Your task to perform on an android device: Go to Android settings Image 0: 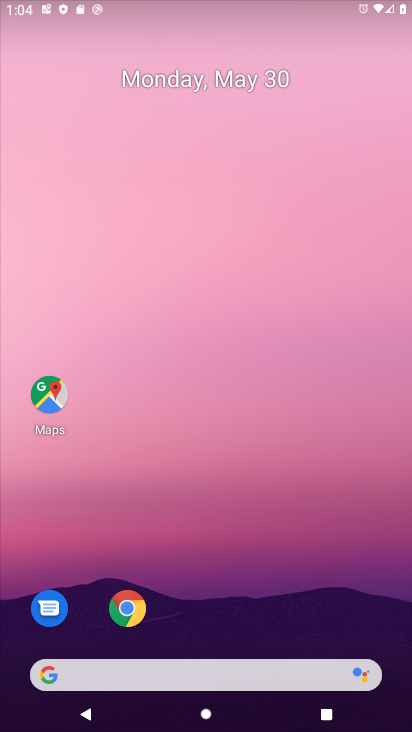
Step 0: click (224, 681)
Your task to perform on an android device: Go to Android settings Image 1: 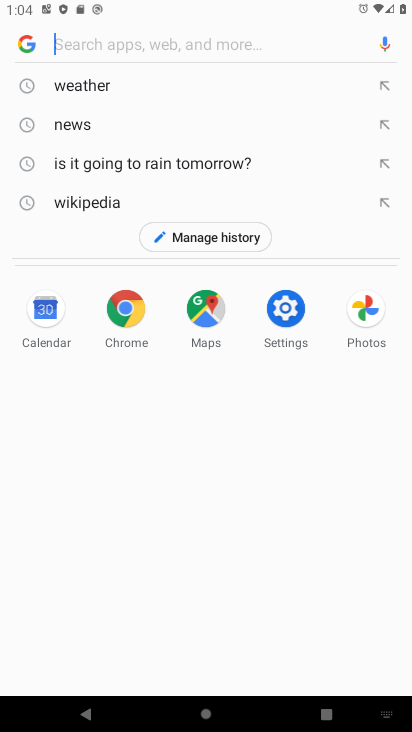
Step 1: press home button
Your task to perform on an android device: Go to Android settings Image 2: 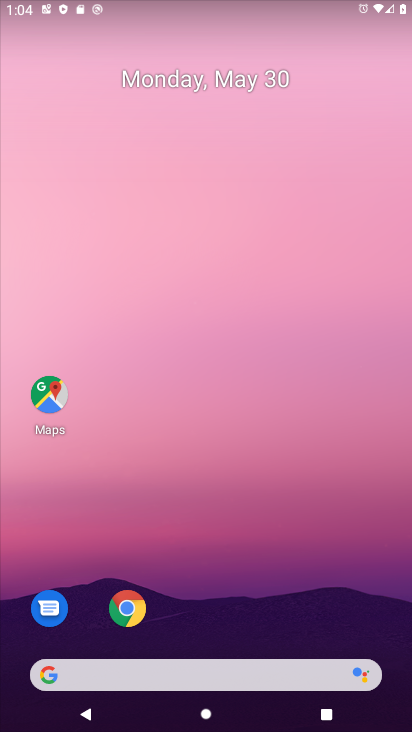
Step 2: drag from (214, 552) to (227, 167)
Your task to perform on an android device: Go to Android settings Image 3: 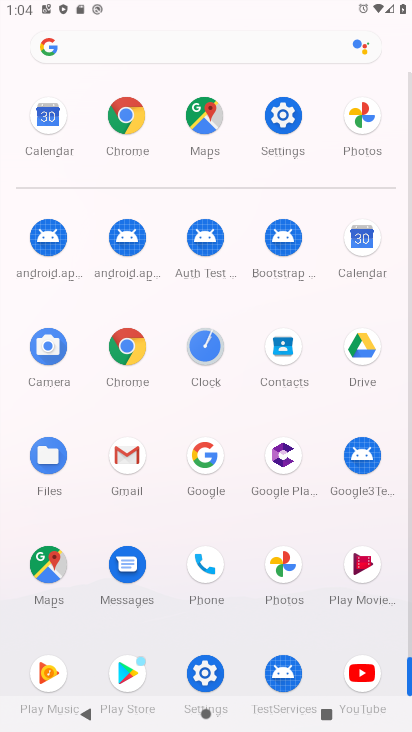
Step 3: click (292, 121)
Your task to perform on an android device: Go to Android settings Image 4: 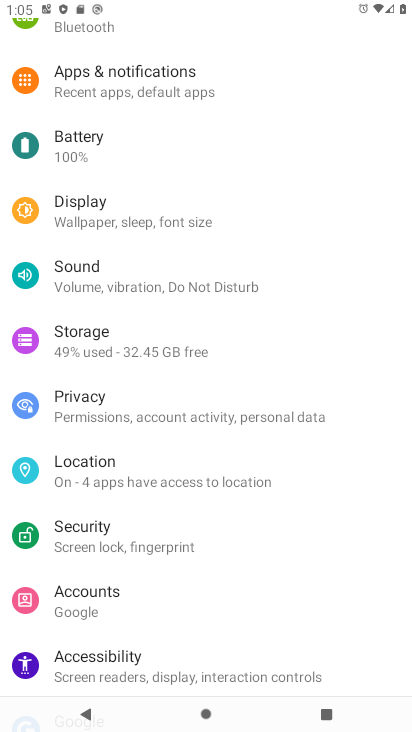
Step 4: task complete